Your task to perform on an android device: turn off notifications in google photos Image 0: 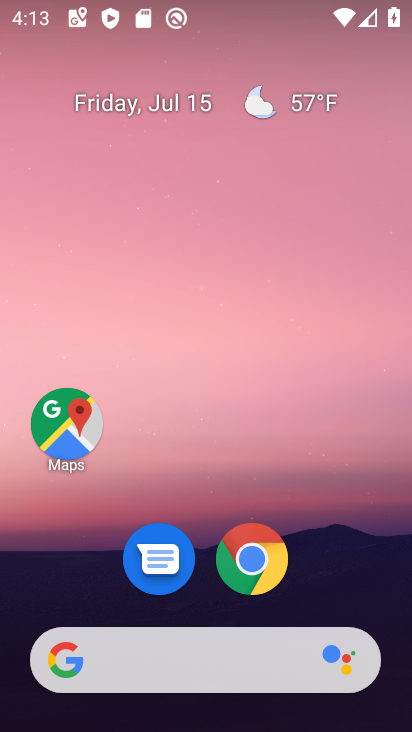
Step 0: drag from (98, 563) to (229, 21)
Your task to perform on an android device: turn off notifications in google photos Image 1: 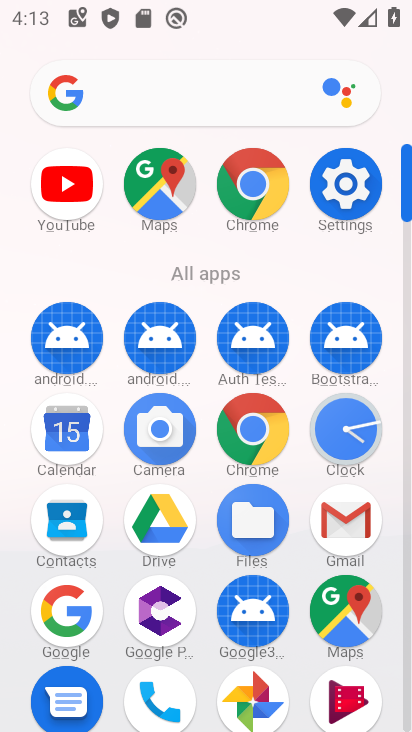
Step 1: click (243, 680)
Your task to perform on an android device: turn off notifications in google photos Image 2: 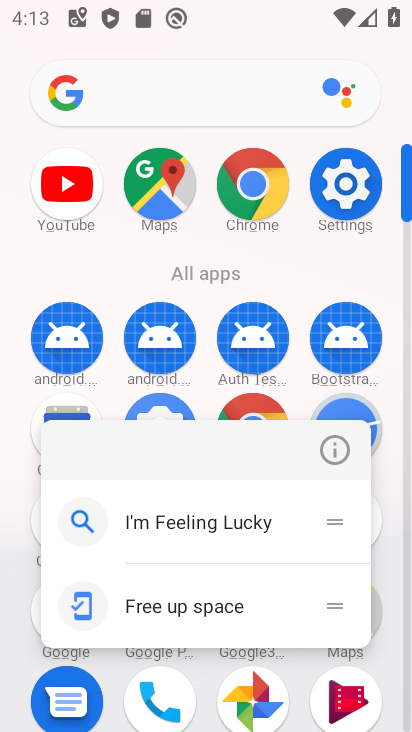
Step 2: click (342, 443)
Your task to perform on an android device: turn off notifications in google photos Image 3: 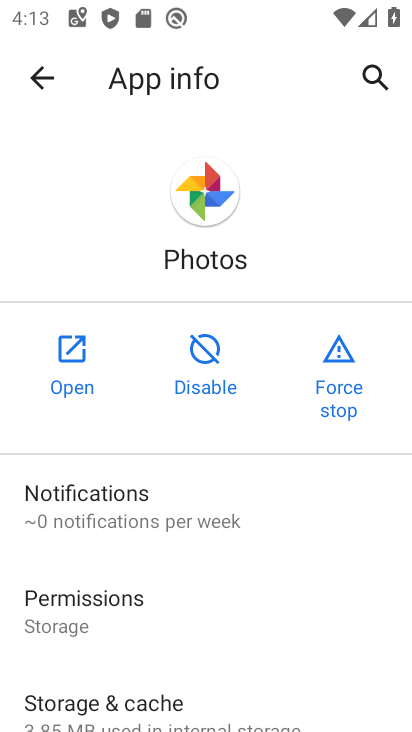
Step 3: click (124, 506)
Your task to perform on an android device: turn off notifications in google photos Image 4: 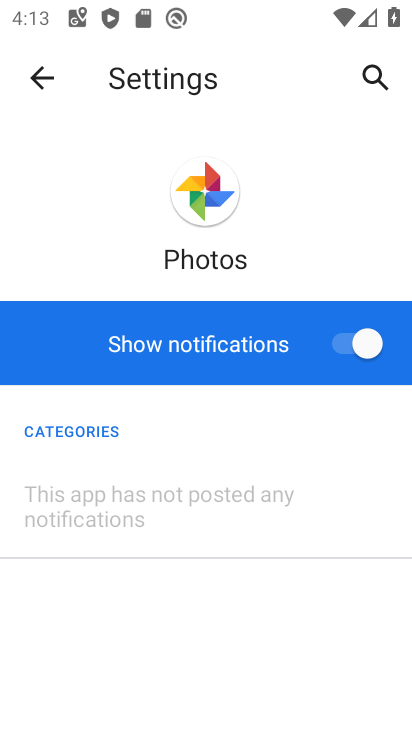
Step 4: click (362, 331)
Your task to perform on an android device: turn off notifications in google photos Image 5: 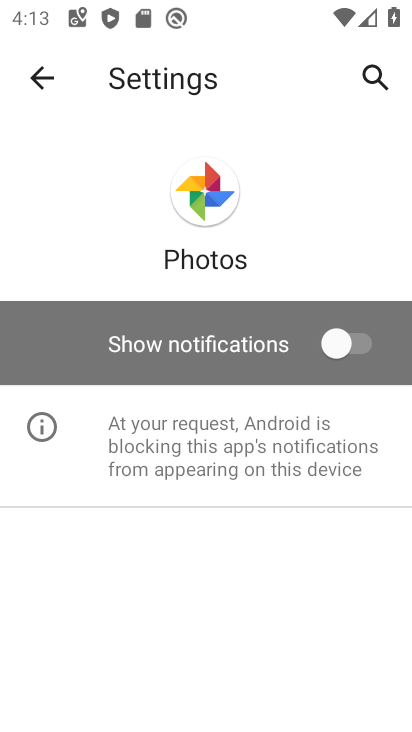
Step 5: task complete